Your task to perform on an android device: Search for the new Nike Air Max 270 on Nike.com Image 0: 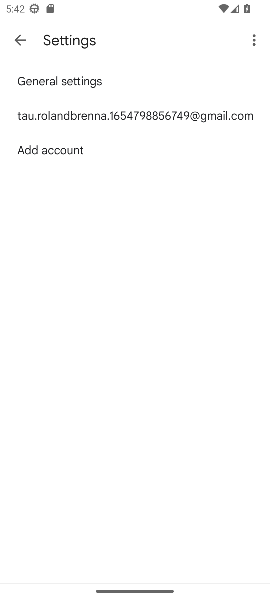
Step 0: press home button
Your task to perform on an android device: Search for the new Nike Air Max 270 on Nike.com Image 1: 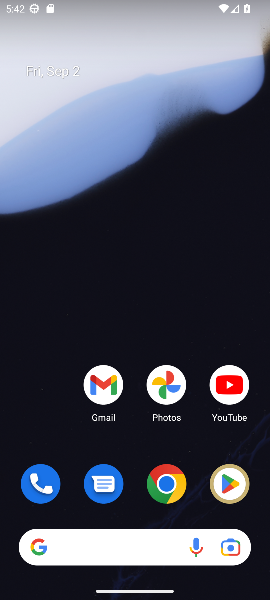
Step 1: click (168, 483)
Your task to perform on an android device: Search for the new Nike Air Max 270 on Nike.com Image 2: 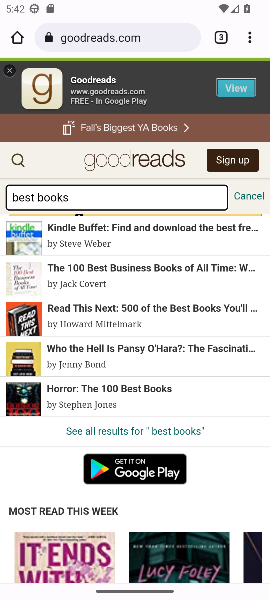
Step 2: click (166, 36)
Your task to perform on an android device: Search for the new Nike Air Max 270 on Nike.com Image 3: 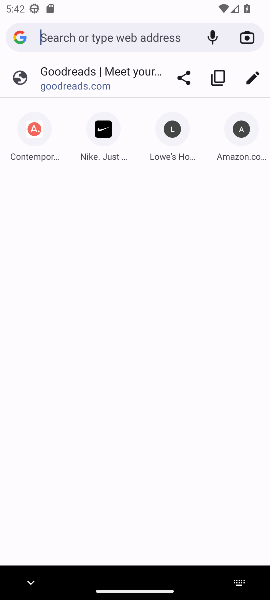
Step 3: type "Nike.com"
Your task to perform on an android device: Search for the new Nike Air Max 270 on Nike.com Image 4: 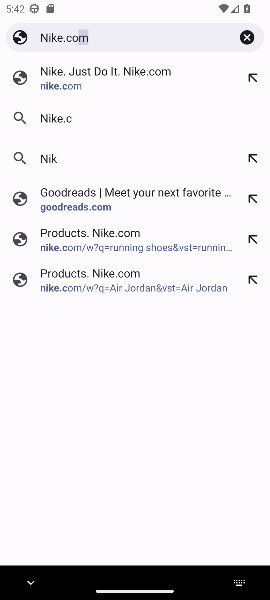
Step 4: press enter
Your task to perform on an android device: Search for the new Nike Air Max 270 on Nike.com Image 5: 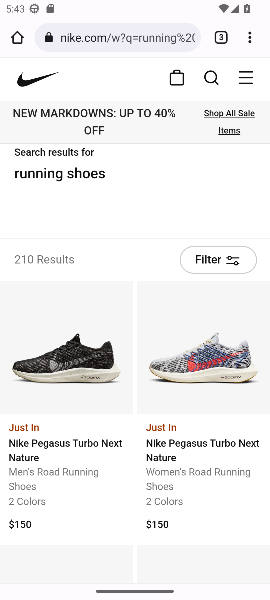
Step 5: click (209, 74)
Your task to perform on an android device: Search for the new Nike Air Max 270 on Nike.com Image 6: 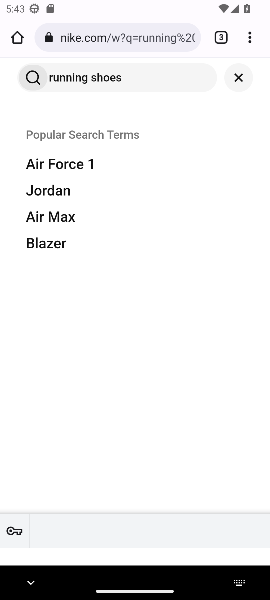
Step 6: click (235, 77)
Your task to perform on an android device: Search for the new Nike Air Max 270 on Nike.com Image 7: 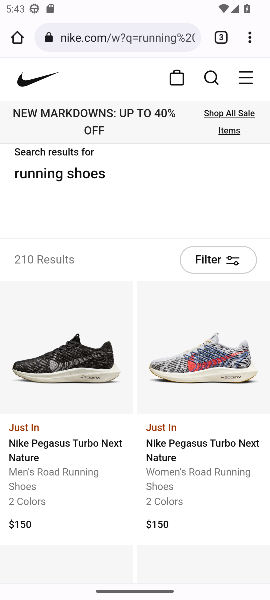
Step 7: click (212, 79)
Your task to perform on an android device: Search for the new Nike Air Max 270 on Nike.com Image 8: 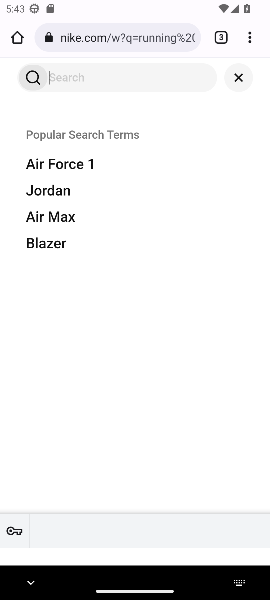
Step 8: type "Air Max 270 "
Your task to perform on an android device: Search for the new Nike Air Max 270 on Nike.com Image 9: 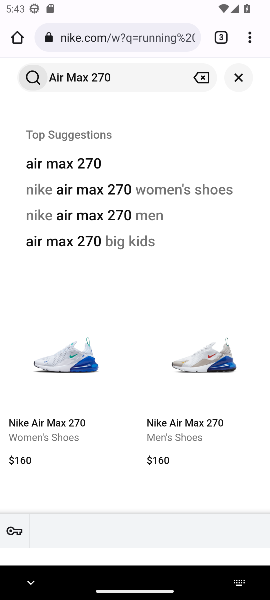
Step 9: task complete